Your task to perform on an android device: set the timer Image 0: 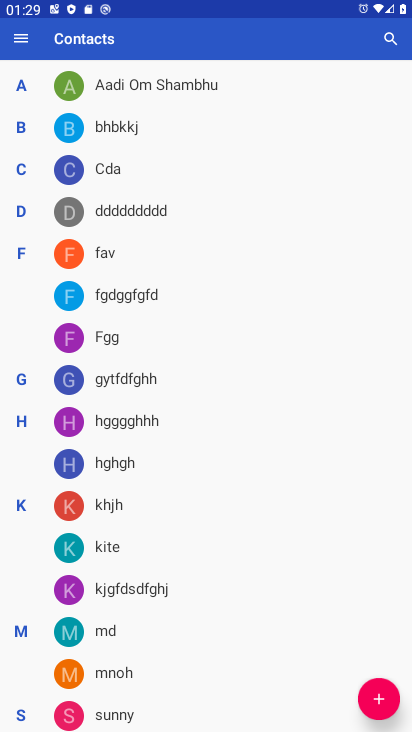
Step 0: press home button
Your task to perform on an android device: set the timer Image 1: 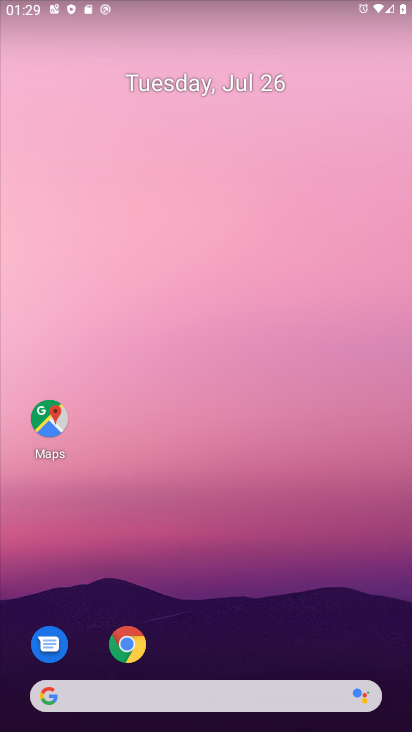
Step 1: drag from (234, 638) to (192, 274)
Your task to perform on an android device: set the timer Image 2: 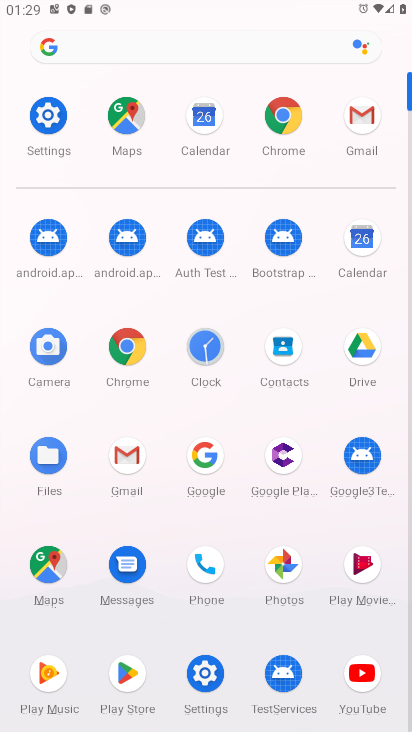
Step 2: click (213, 338)
Your task to perform on an android device: set the timer Image 3: 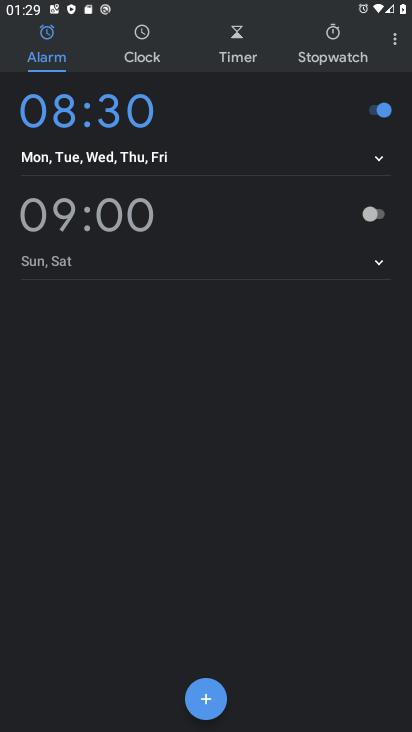
Step 3: click (230, 45)
Your task to perform on an android device: set the timer Image 4: 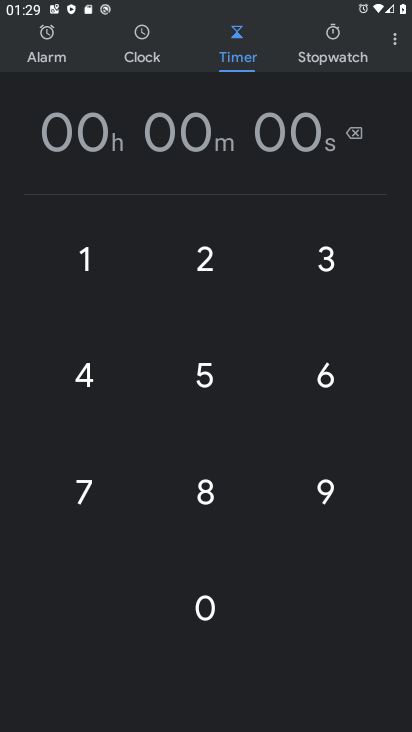
Step 4: click (140, 133)
Your task to perform on an android device: set the timer Image 5: 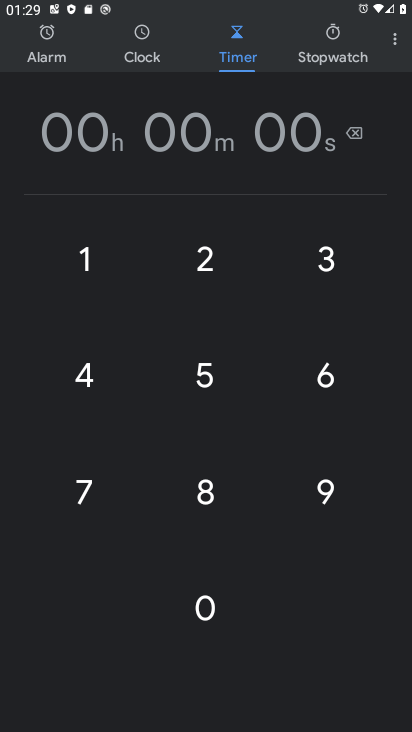
Step 5: type "34343443443434 "
Your task to perform on an android device: set the timer Image 6: 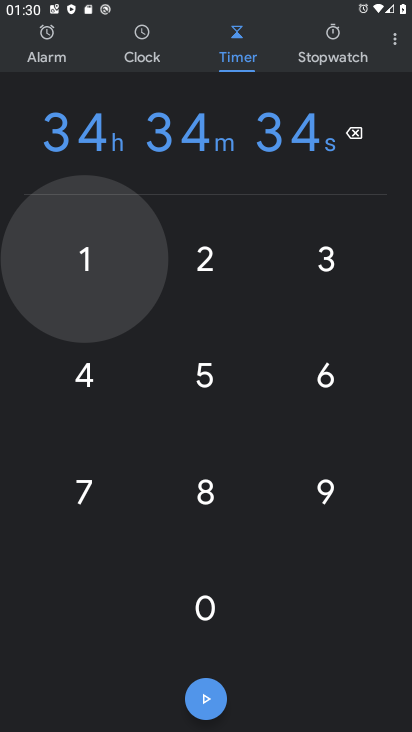
Step 6: task complete